Your task to perform on an android device: open app "Adobe Express: Graphic Design" (install if not already installed) Image 0: 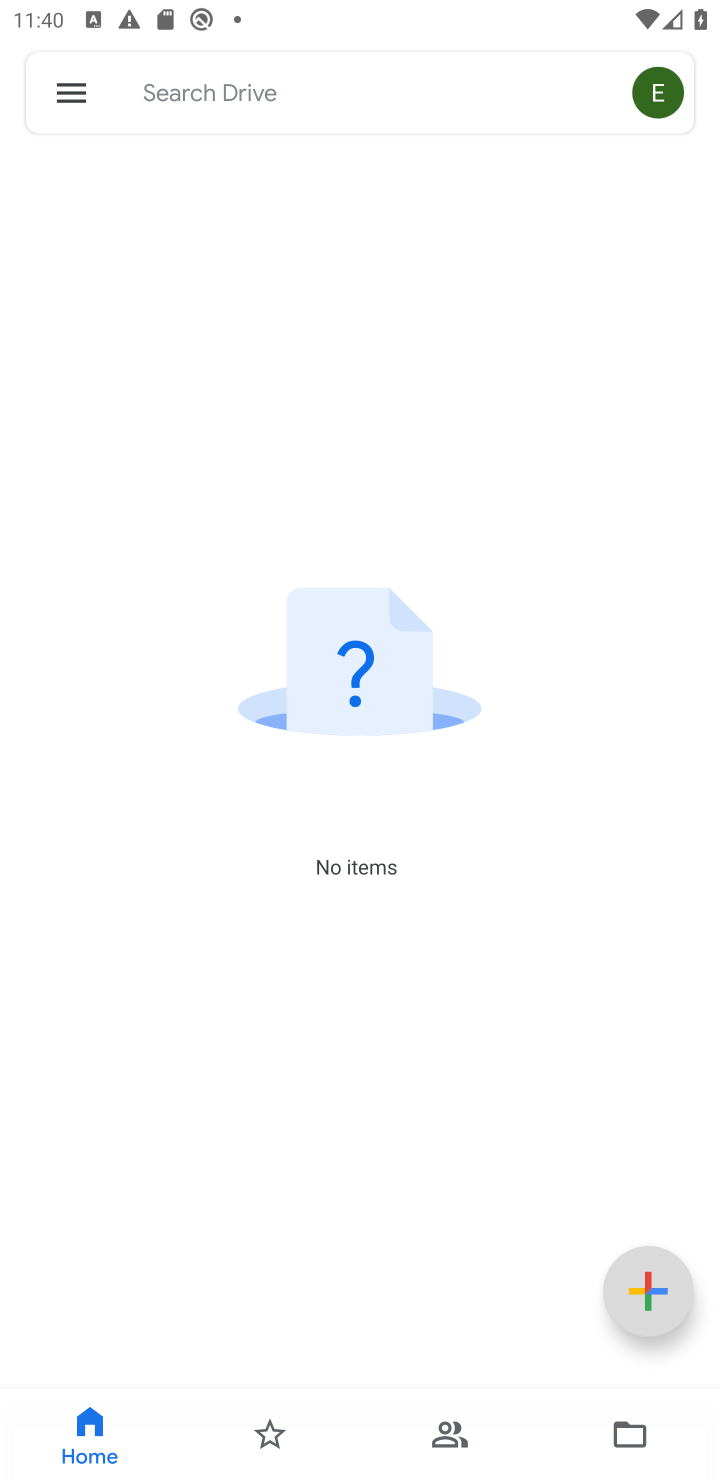
Step 0: press home button
Your task to perform on an android device: open app "Adobe Express: Graphic Design" (install if not already installed) Image 1: 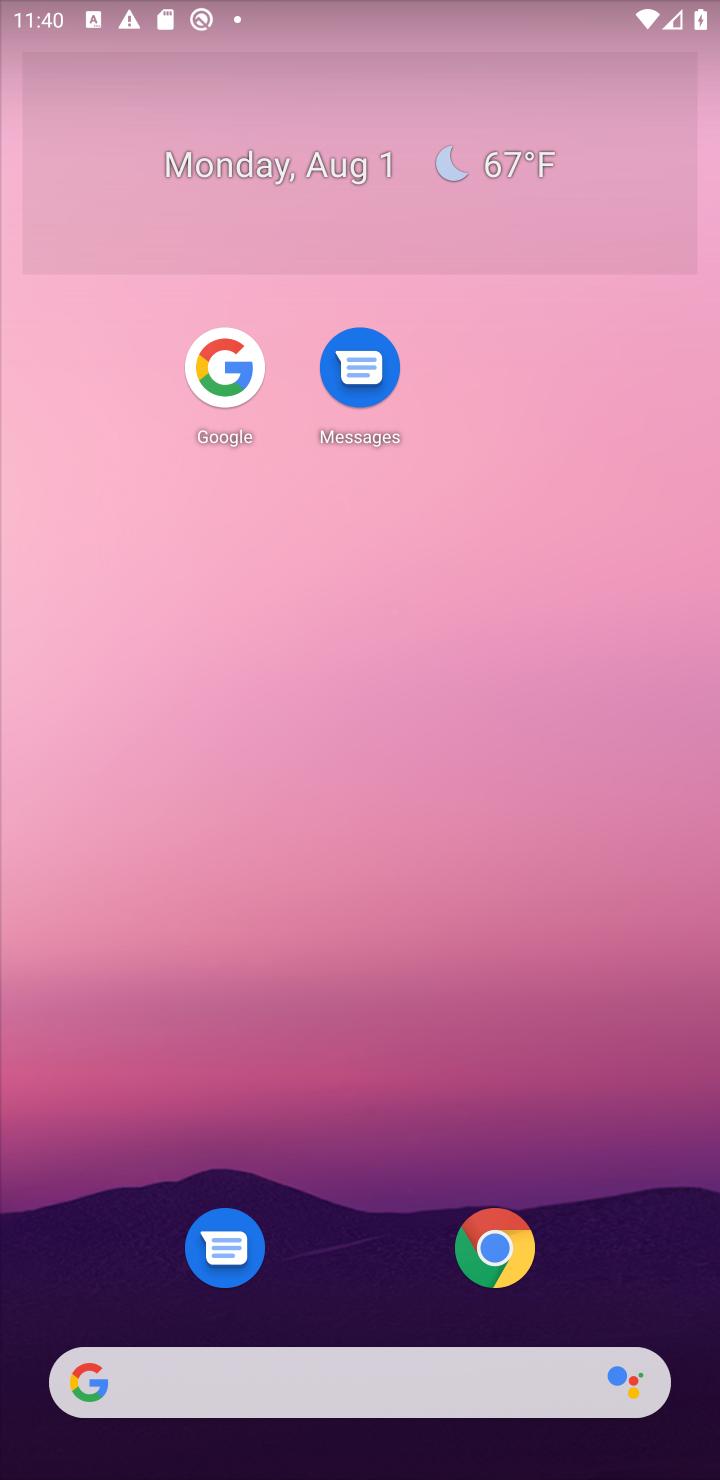
Step 1: drag from (493, 903) to (577, 49)
Your task to perform on an android device: open app "Adobe Express: Graphic Design" (install if not already installed) Image 2: 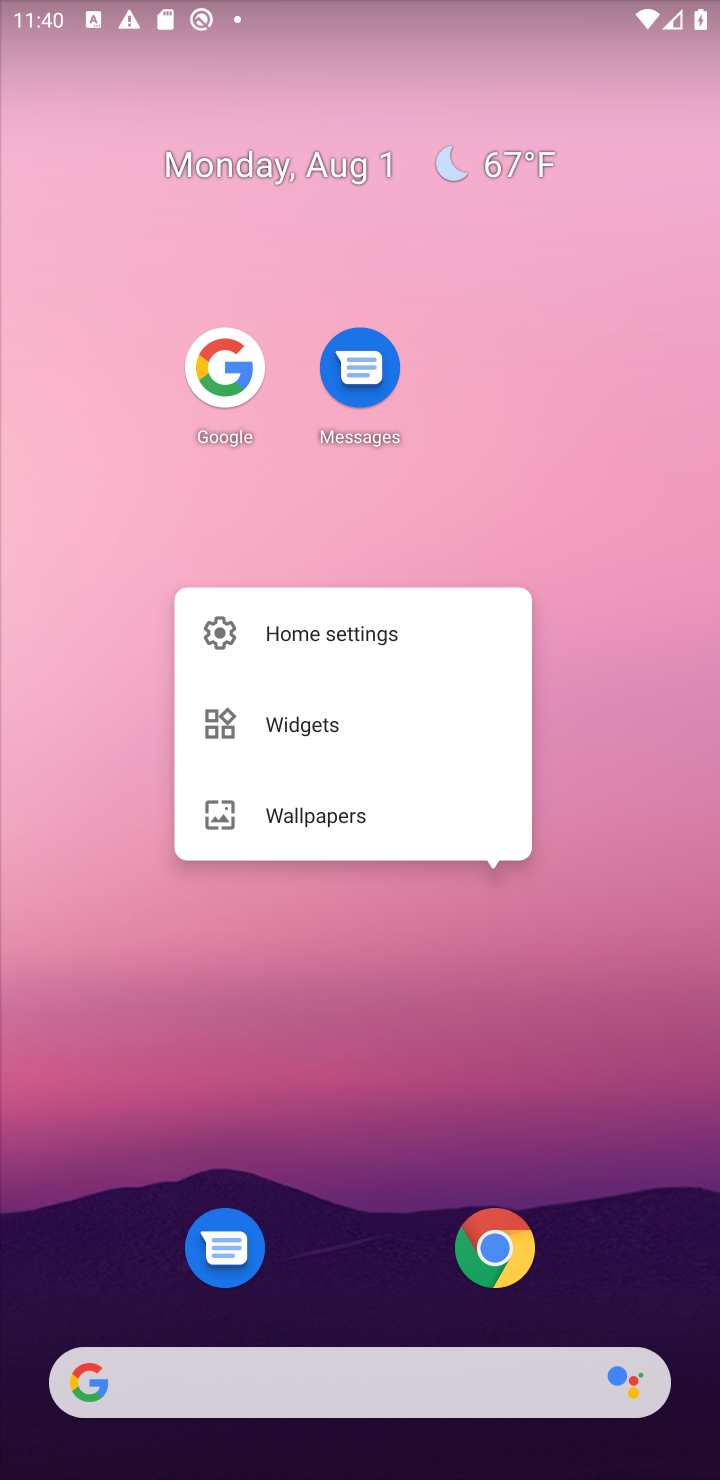
Step 2: click (592, 347)
Your task to perform on an android device: open app "Adobe Express: Graphic Design" (install if not already installed) Image 3: 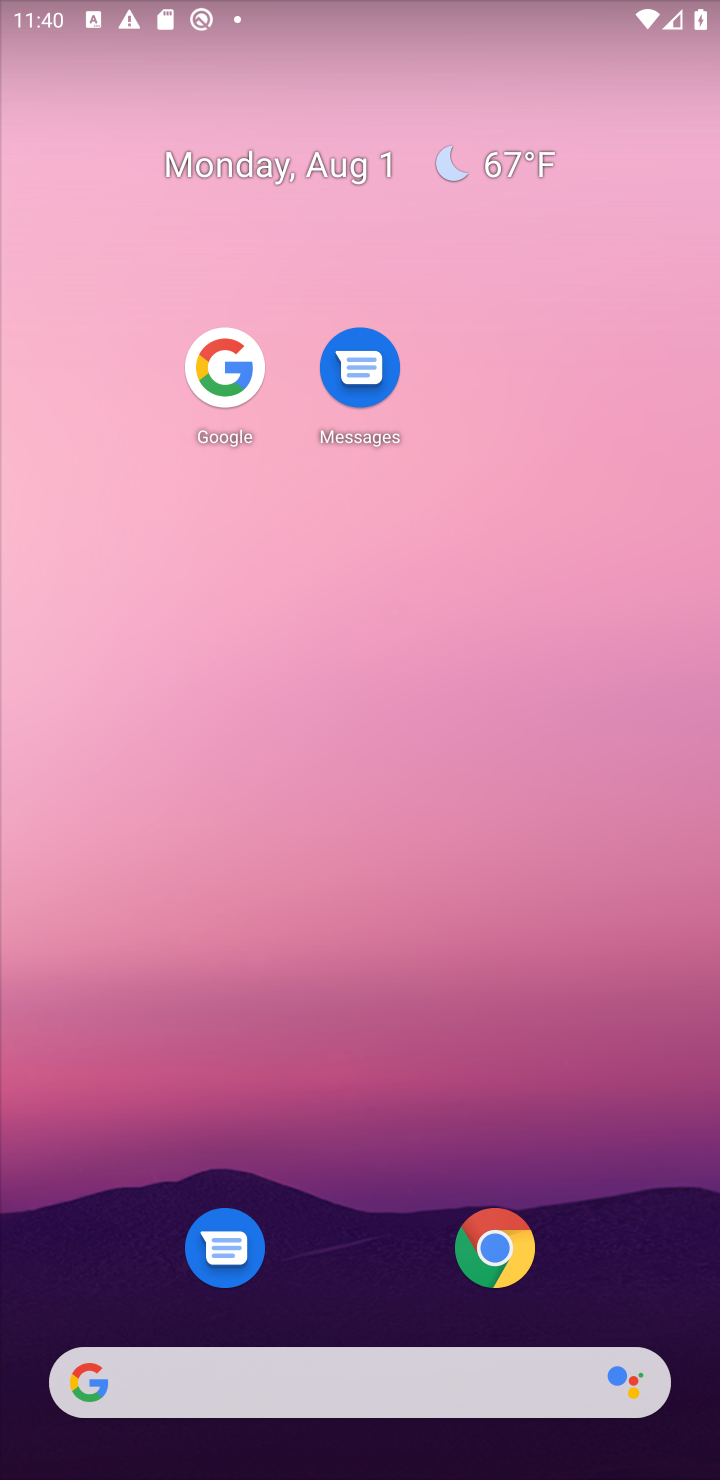
Step 3: drag from (371, 1099) to (491, 167)
Your task to perform on an android device: open app "Adobe Express: Graphic Design" (install if not already installed) Image 4: 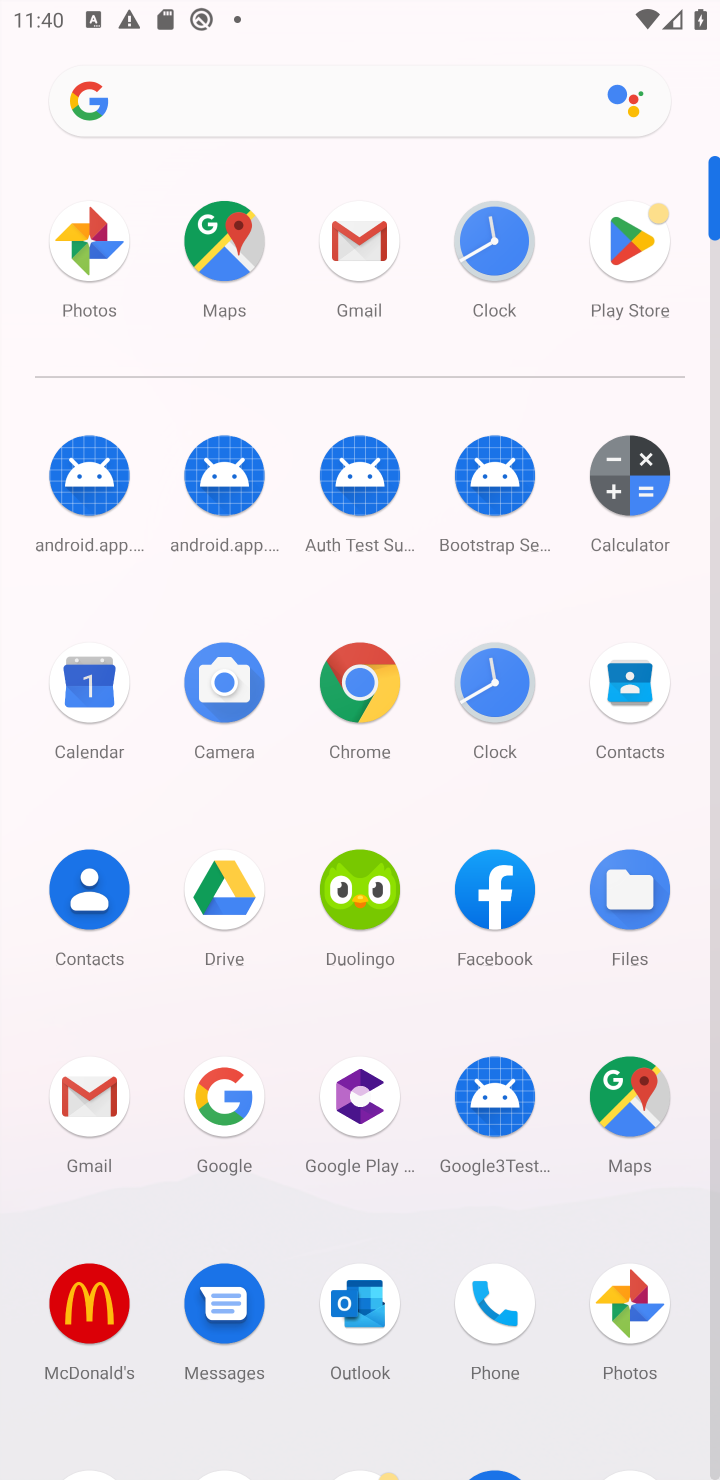
Step 4: drag from (434, 1236) to (497, 372)
Your task to perform on an android device: open app "Adobe Express: Graphic Design" (install if not already installed) Image 5: 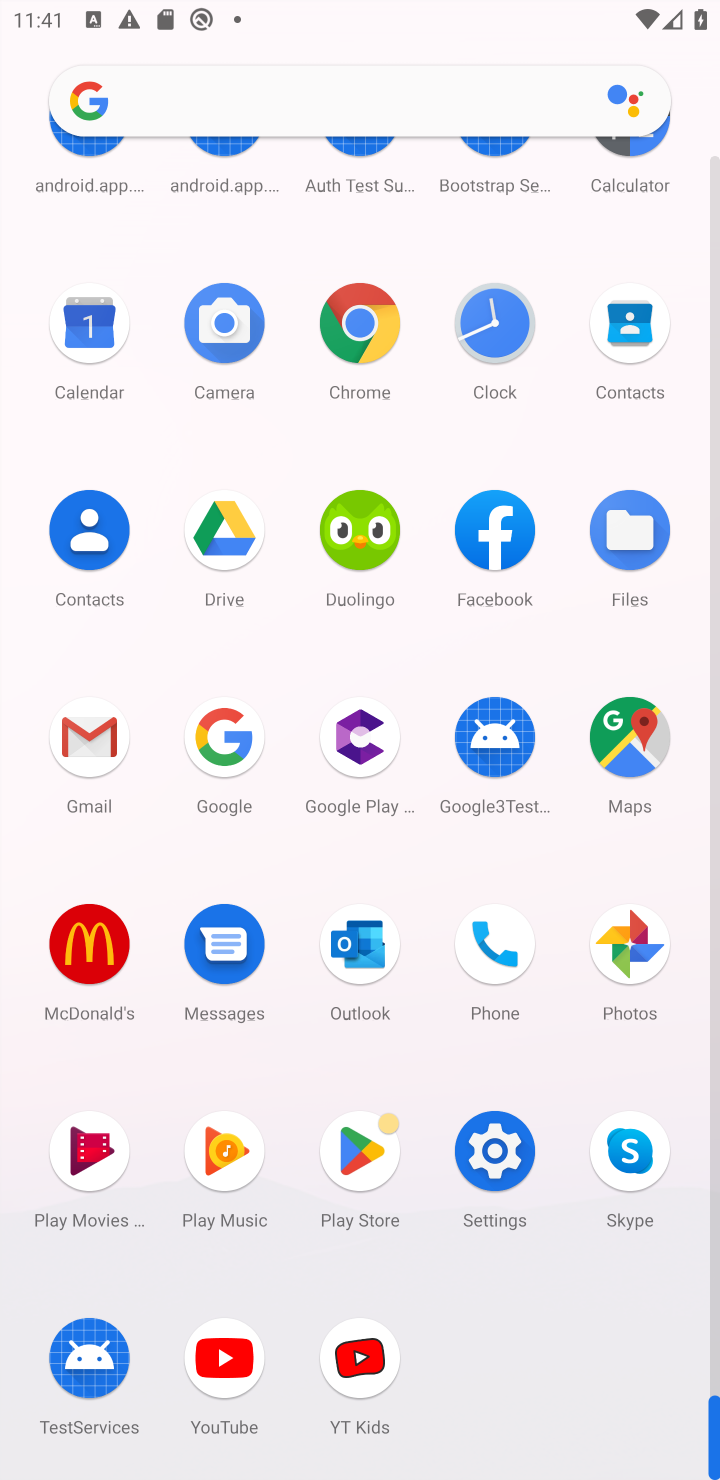
Step 5: click (365, 1137)
Your task to perform on an android device: open app "Adobe Express: Graphic Design" (install if not already installed) Image 6: 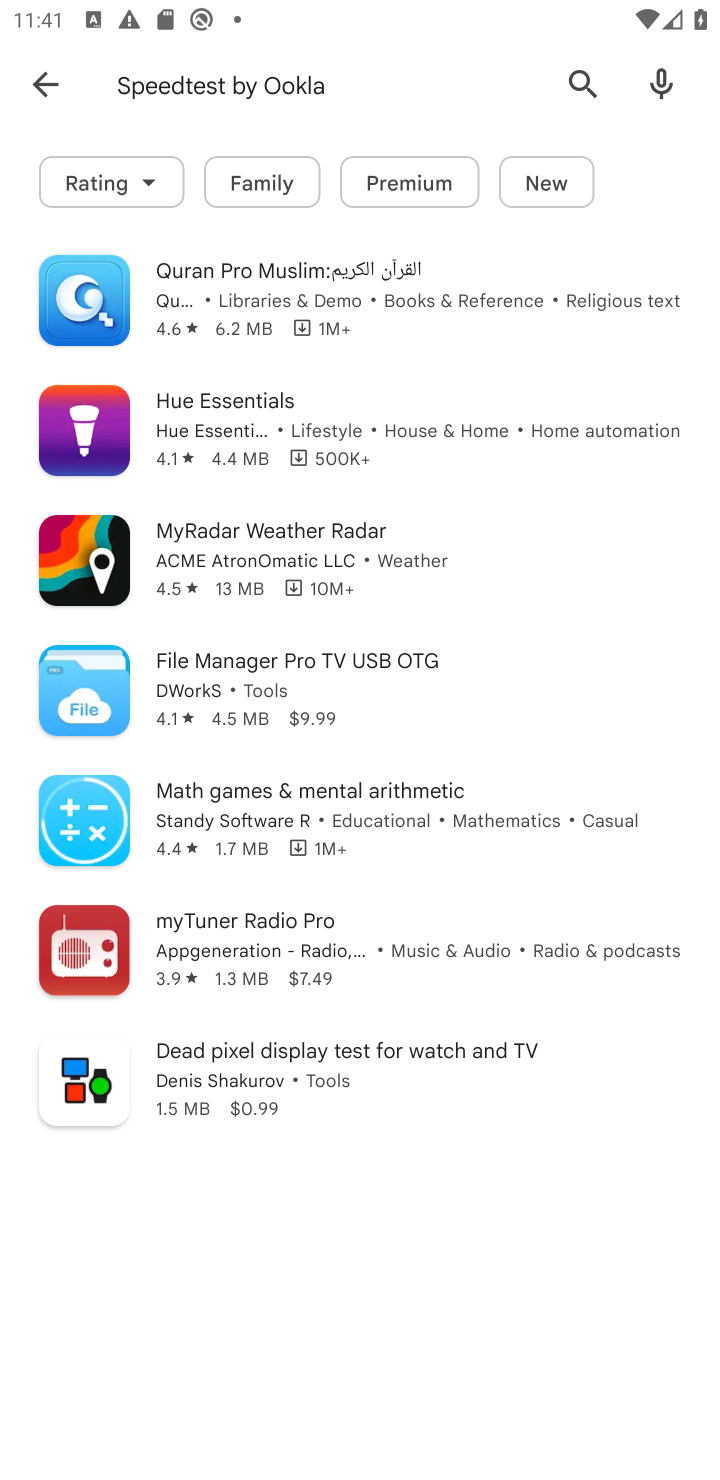
Step 6: click (467, 75)
Your task to perform on an android device: open app "Adobe Express: Graphic Design" (install if not already installed) Image 7: 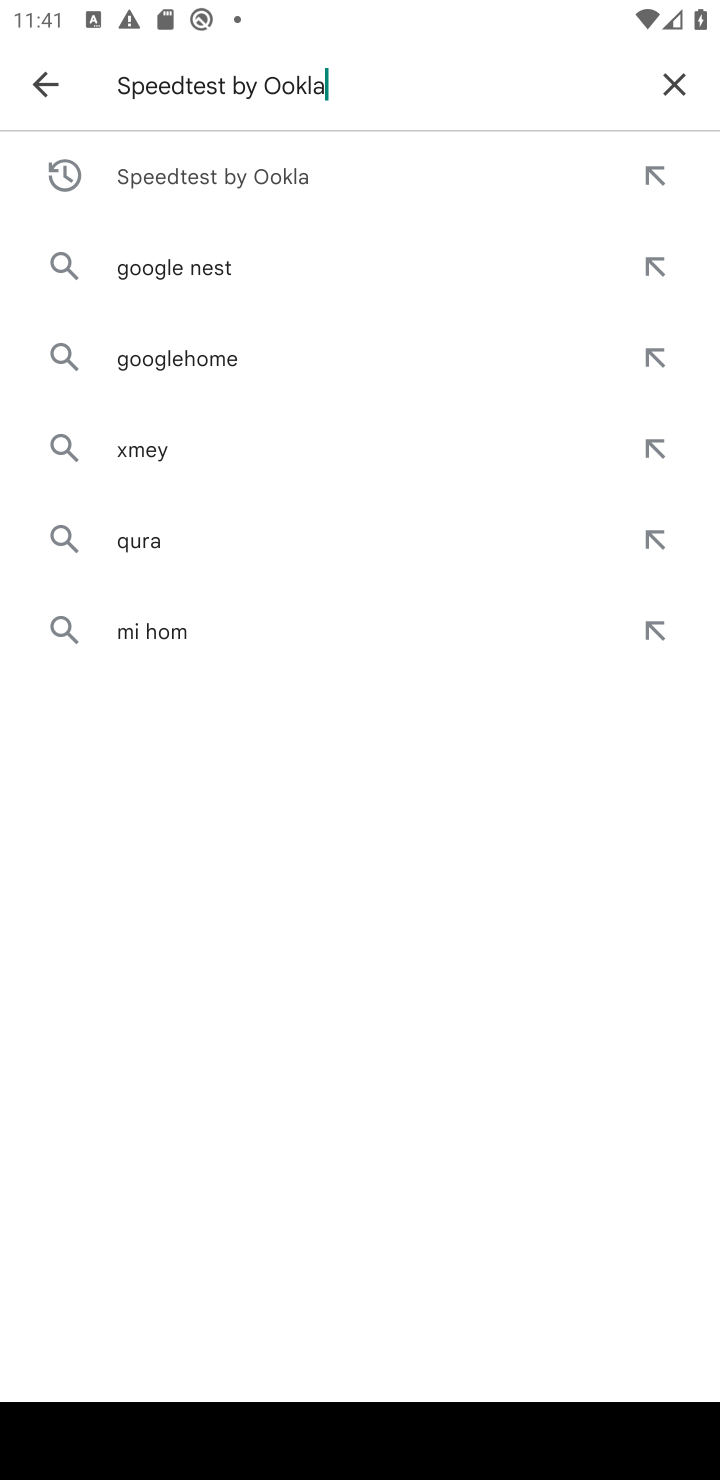
Step 7: click (684, 78)
Your task to perform on an android device: open app "Adobe Express: Graphic Design" (install if not already installed) Image 8: 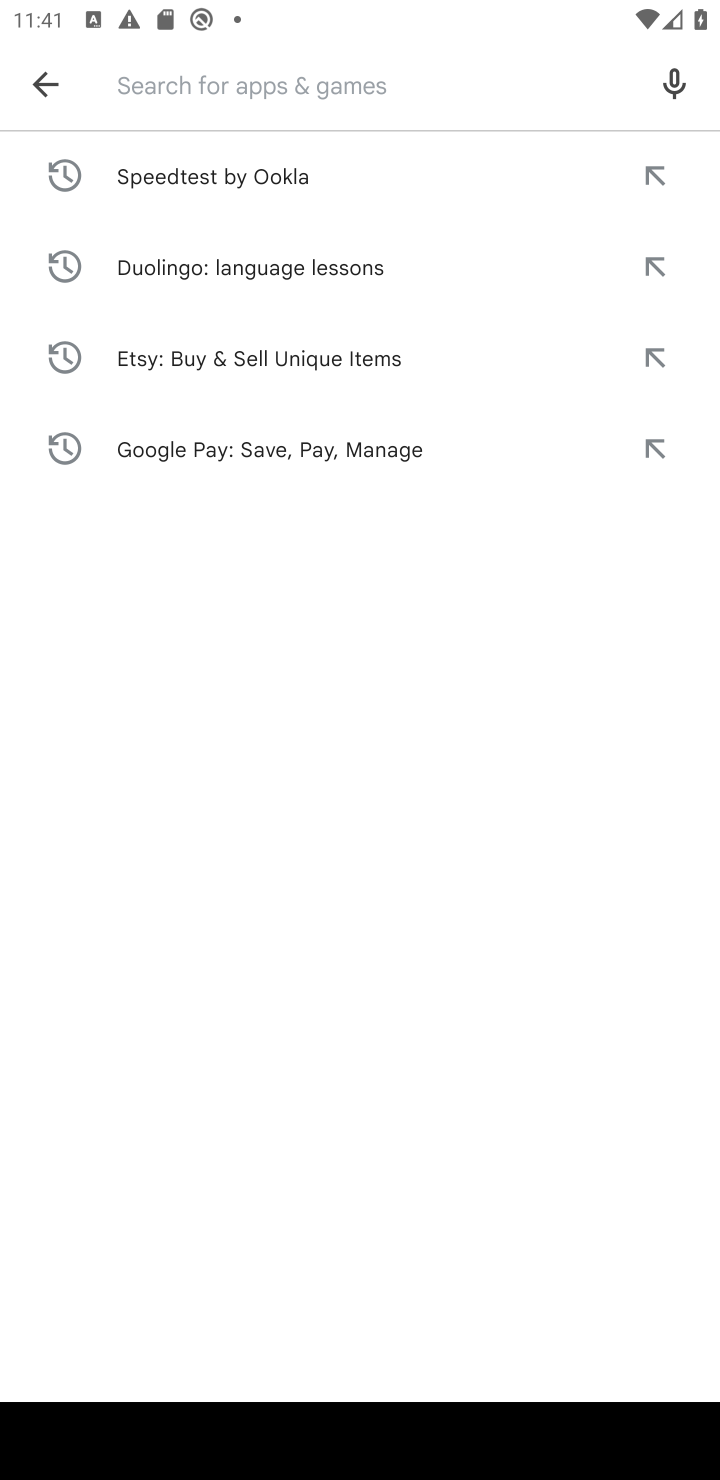
Step 8: type "Adobe Express: Graphic Design"
Your task to perform on an android device: open app "Adobe Express: Graphic Design" (install if not already installed) Image 9: 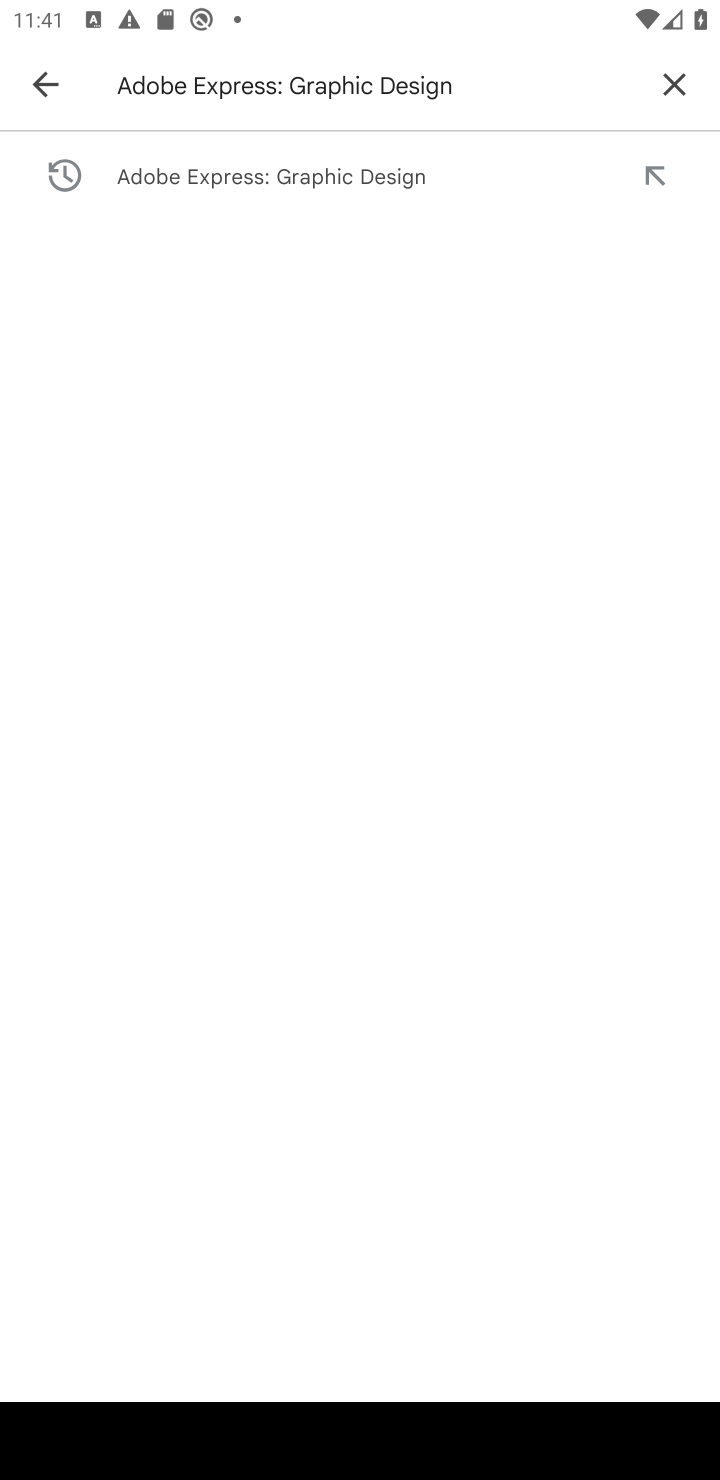
Step 9: press enter
Your task to perform on an android device: open app "Adobe Express: Graphic Design" (install if not already installed) Image 10: 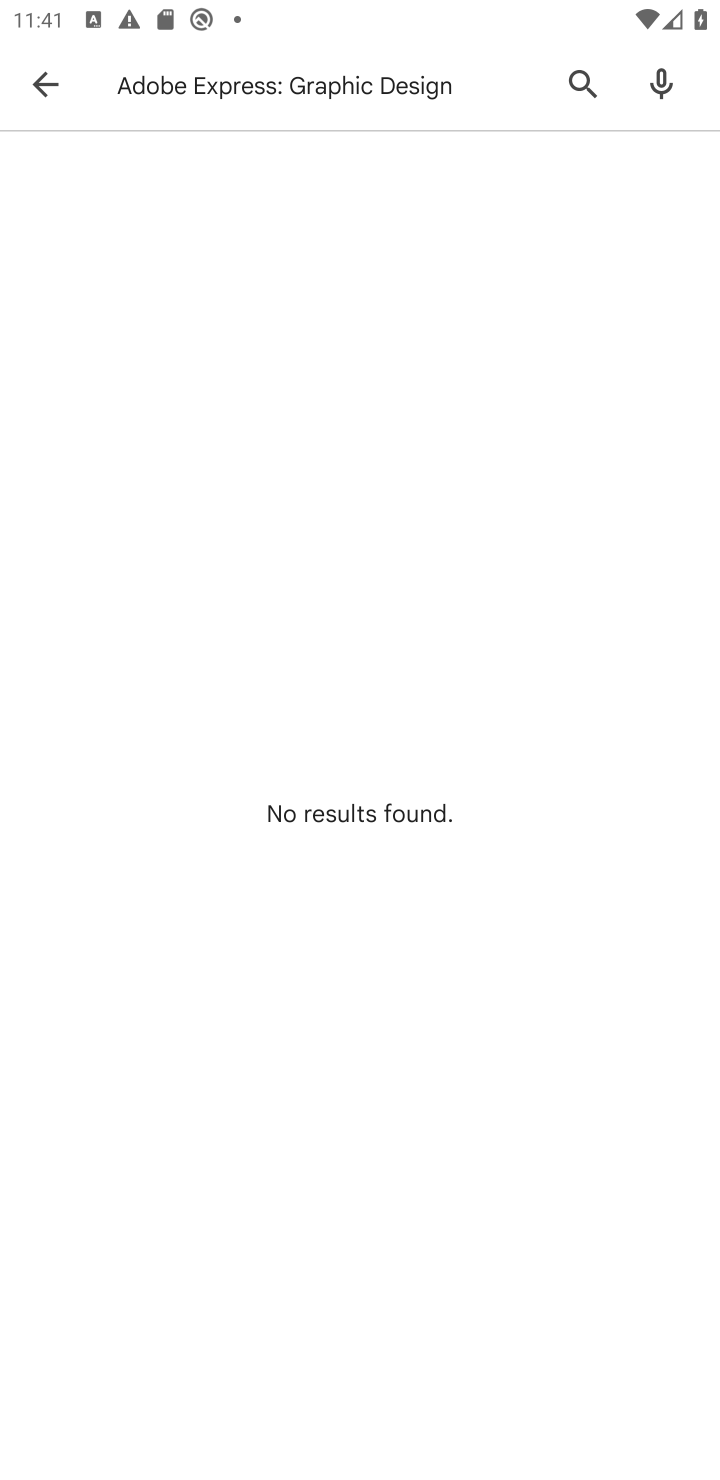
Step 10: task complete